Your task to perform on an android device: remove spam from my inbox in the gmail app Image 0: 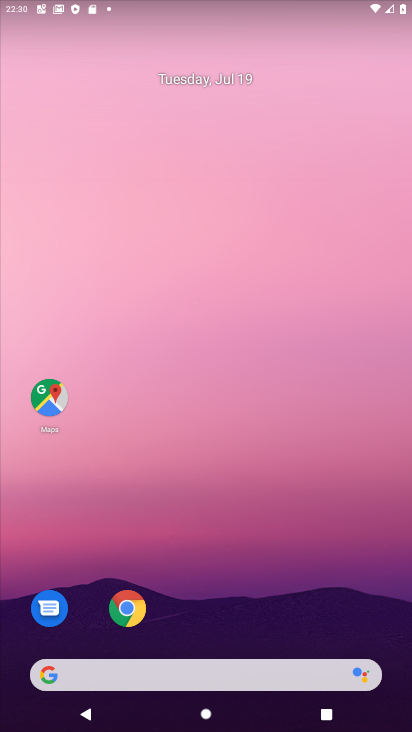
Step 0: drag from (319, 611) to (302, 109)
Your task to perform on an android device: remove spam from my inbox in the gmail app Image 1: 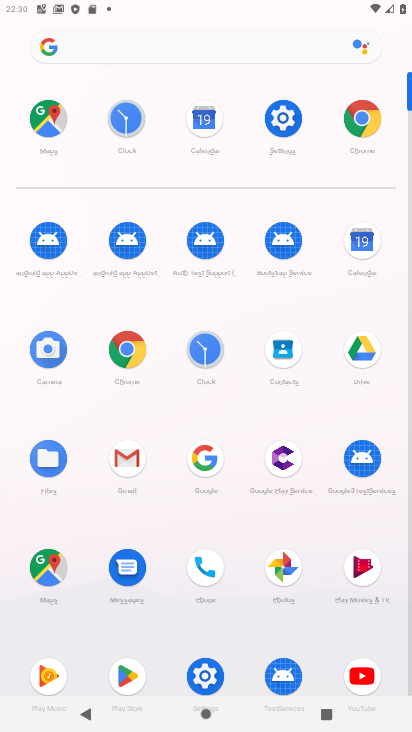
Step 1: click (135, 450)
Your task to perform on an android device: remove spam from my inbox in the gmail app Image 2: 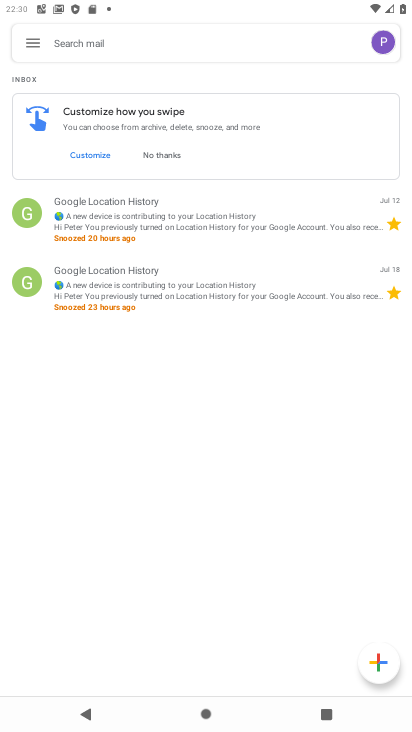
Step 2: click (32, 35)
Your task to perform on an android device: remove spam from my inbox in the gmail app Image 3: 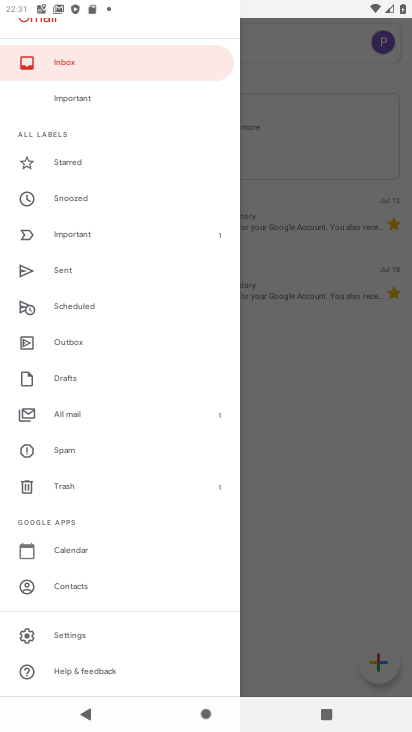
Step 3: click (369, 446)
Your task to perform on an android device: remove spam from my inbox in the gmail app Image 4: 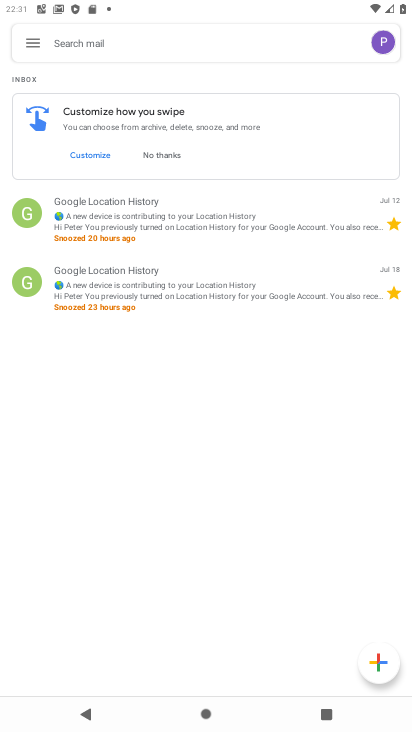
Step 4: task complete